Your task to perform on an android device: turn pop-ups on in chrome Image 0: 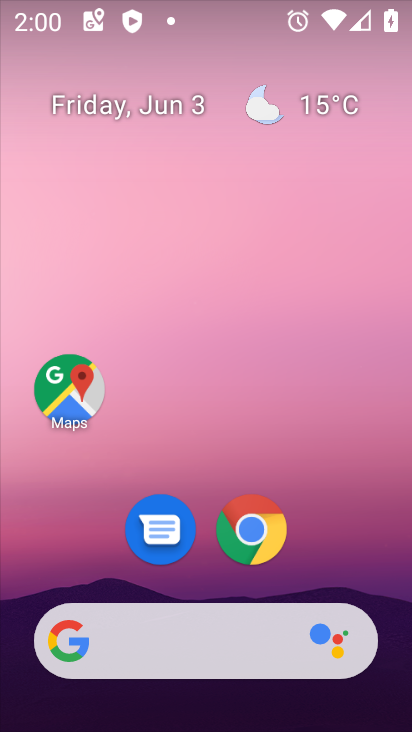
Step 0: drag from (379, 570) to (375, 242)
Your task to perform on an android device: turn pop-ups on in chrome Image 1: 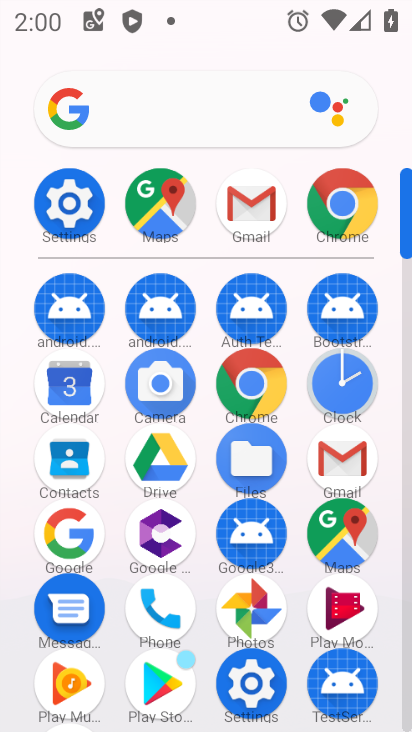
Step 1: click (264, 389)
Your task to perform on an android device: turn pop-ups on in chrome Image 2: 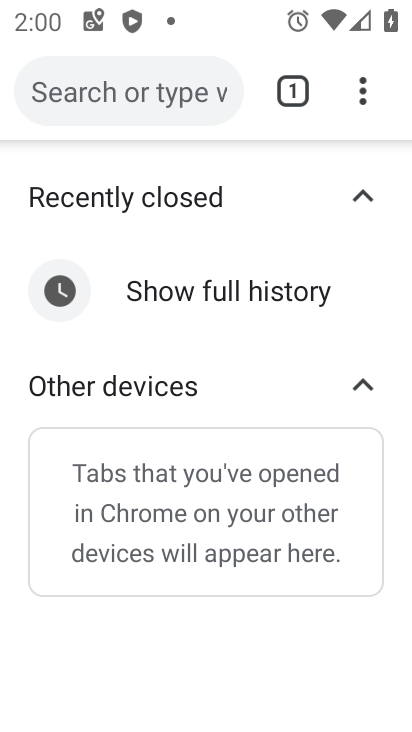
Step 2: click (361, 104)
Your task to perform on an android device: turn pop-ups on in chrome Image 3: 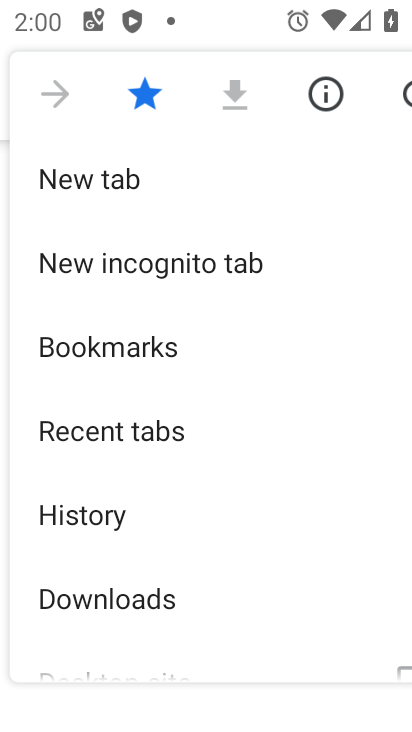
Step 3: drag from (337, 419) to (337, 335)
Your task to perform on an android device: turn pop-ups on in chrome Image 4: 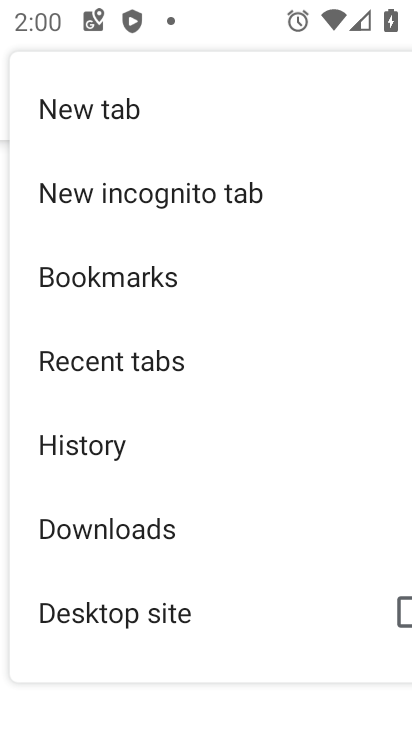
Step 4: drag from (326, 415) to (339, 334)
Your task to perform on an android device: turn pop-ups on in chrome Image 5: 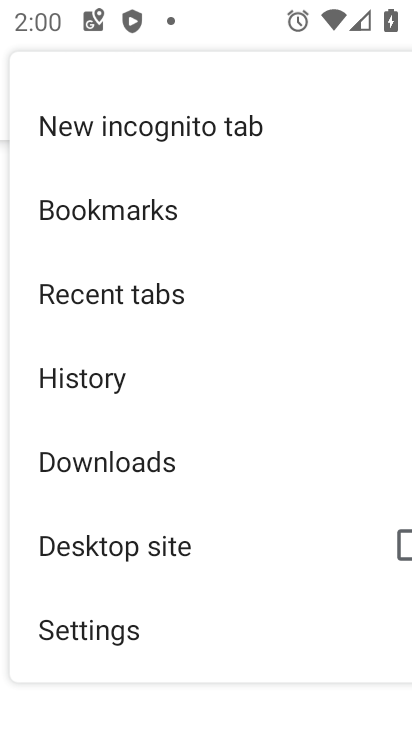
Step 5: drag from (333, 447) to (335, 356)
Your task to perform on an android device: turn pop-ups on in chrome Image 6: 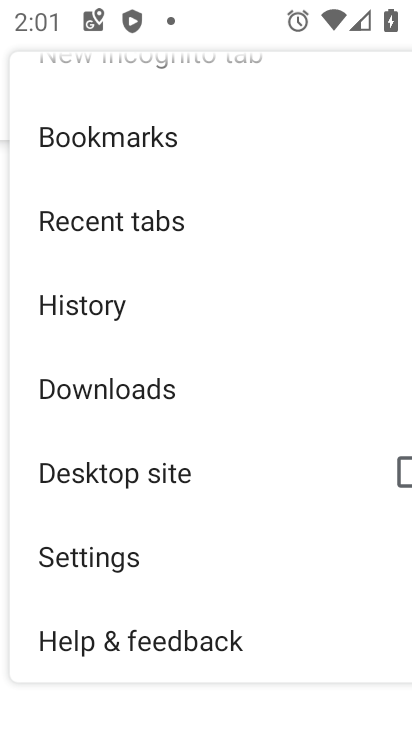
Step 6: drag from (317, 484) to (329, 357)
Your task to perform on an android device: turn pop-ups on in chrome Image 7: 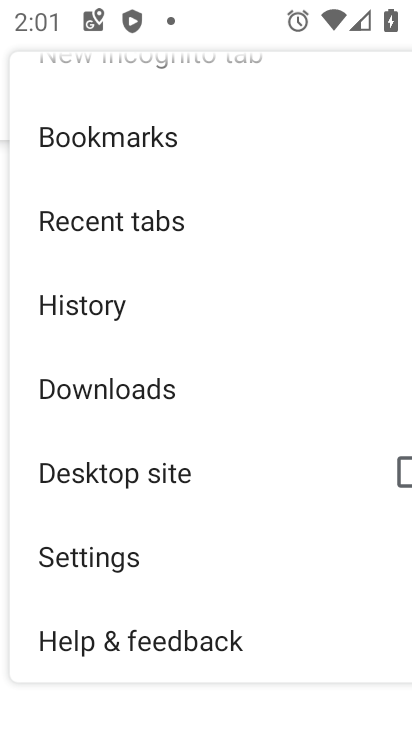
Step 7: click (169, 561)
Your task to perform on an android device: turn pop-ups on in chrome Image 8: 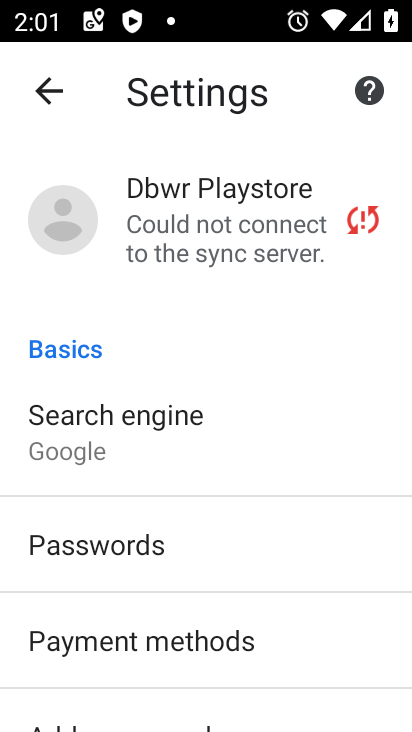
Step 8: drag from (322, 554) to (323, 484)
Your task to perform on an android device: turn pop-ups on in chrome Image 9: 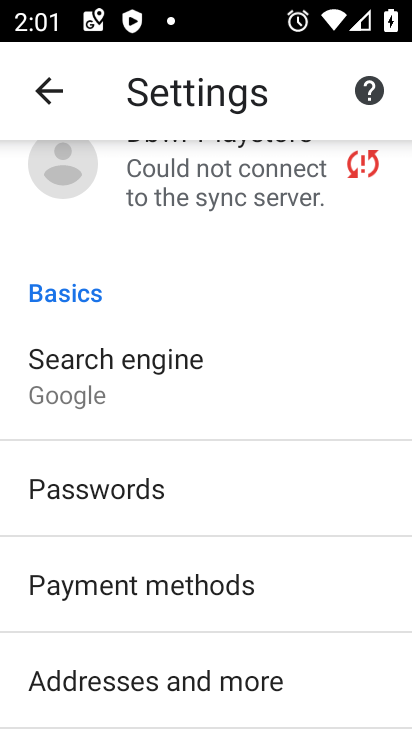
Step 9: drag from (334, 555) to (341, 465)
Your task to perform on an android device: turn pop-ups on in chrome Image 10: 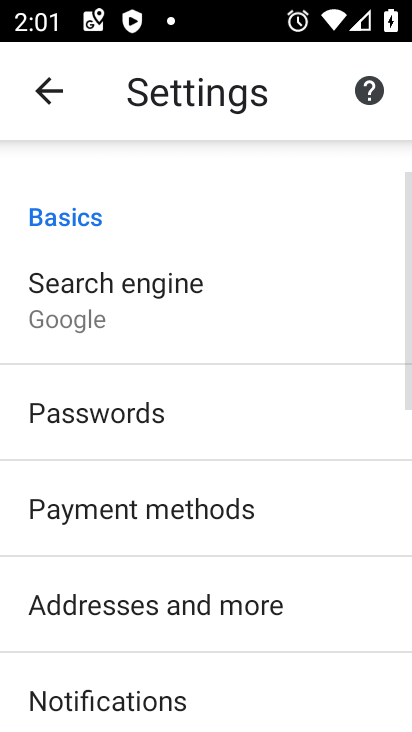
Step 10: drag from (330, 542) to (337, 461)
Your task to perform on an android device: turn pop-ups on in chrome Image 11: 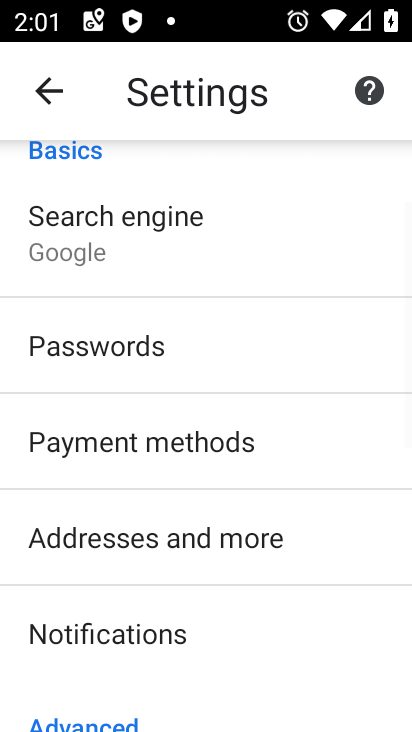
Step 11: drag from (334, 539) to (337, 465)
Your task to perform on an android device: turn pop-ups on in chrome Image 12: 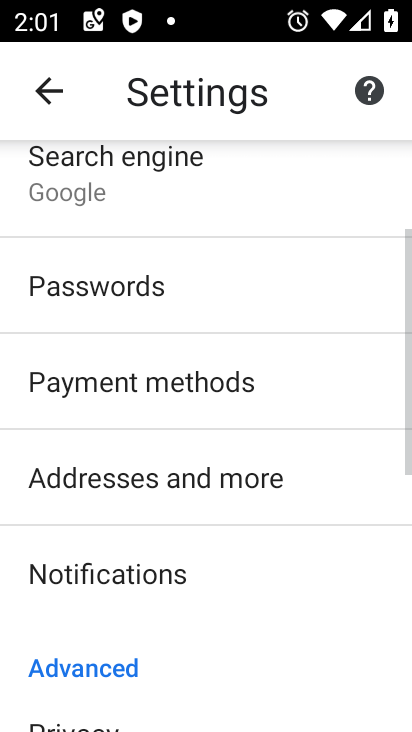
Step 12: drag from (328, 546) to (335, 464)
Your task to perform on an android device: turn pop-ups on in chrome Image 13: 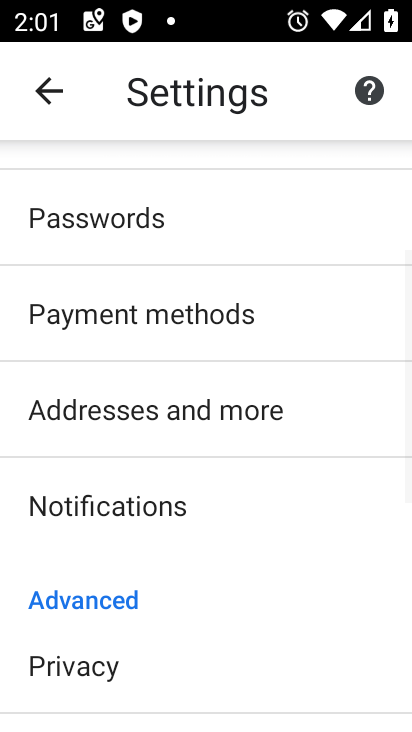
Step 13: drag from (314, 526) to (325, 435)
Your task to perform on an android device: turn pop-ups on in chrome Image 14: 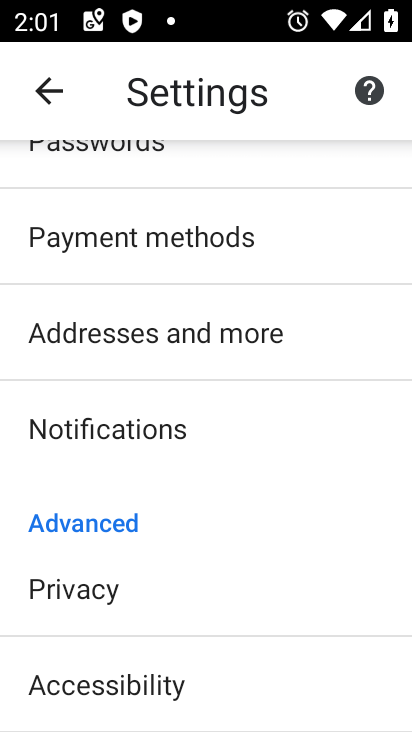
Step 14: drag from (343, 515) to (339, 449)
Your task to perform on an android device: turn pop-ups on in chrome Image 15: 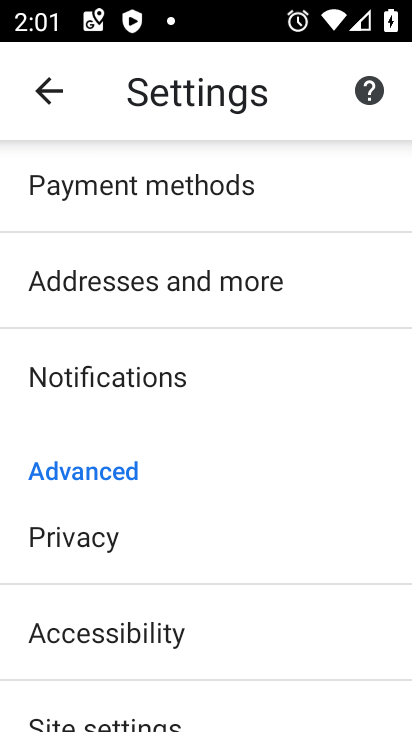
Step 15: drag from (311, 527) to (303, 401)
Your task to perform on an android device: turn pop-ups on in chrome Image 16: 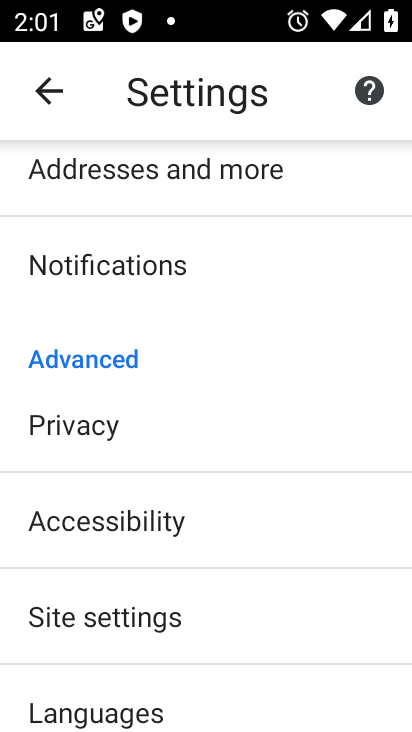
Step 16: drag from (288, 565) to (283, 427)
Your task to perform on an android device: turn pop-ups on in chrome Image 17: 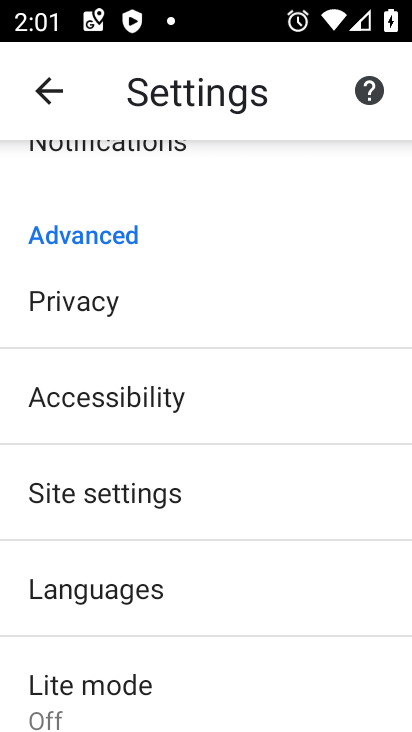
Step 17: click (261, 495)
Your task to perform on an android device: turn pop-ups on in chrome Image 18: 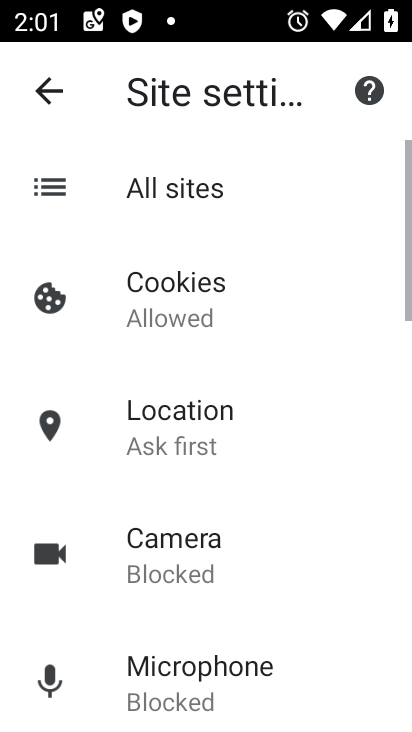
Step 18: drag from (264, 537) to (270, 428)
Your task to perform on an android device: turn pop-ups on in chrome Image 19: 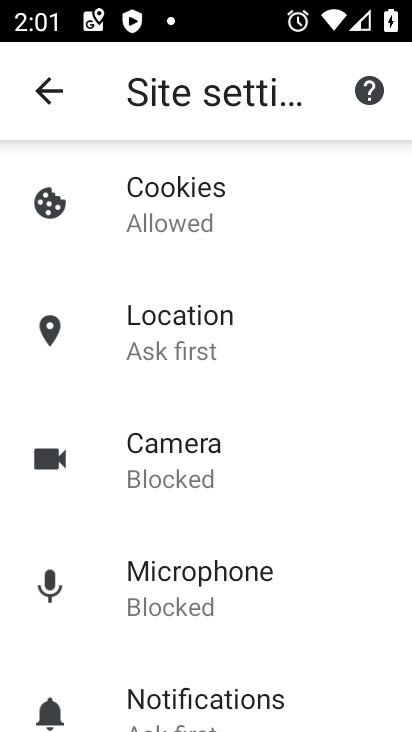
Step 19: drag from (316, 583) to (316, 469)
Your task to perform on an android device: turn pop-ups on in chrome Image 20: 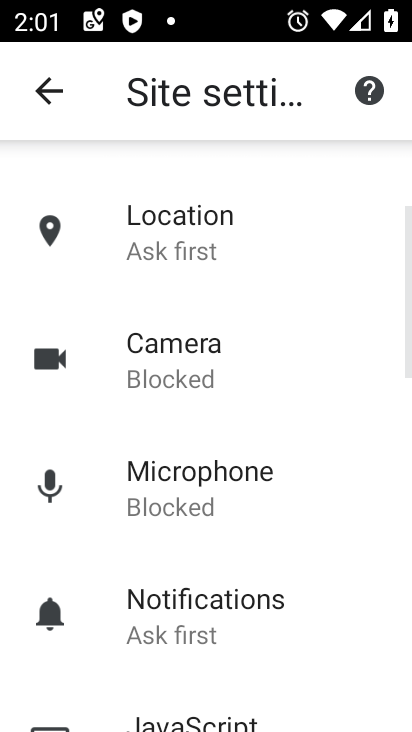
Step 20: drag from (326, 573) to (333, 462)
Your task to perform on an android device: turn pop-ups on in chrome Image 21: 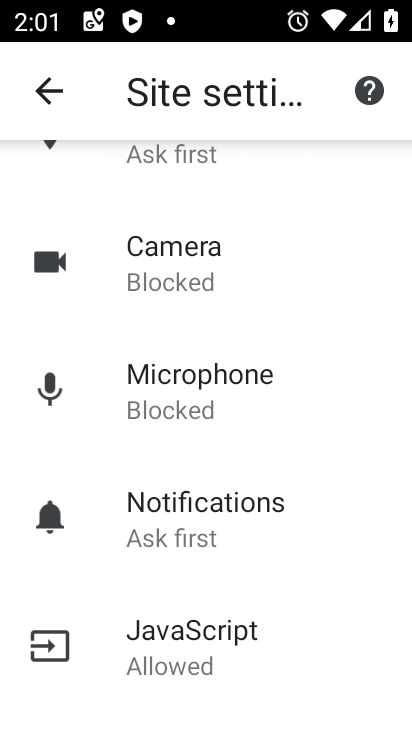
Step 21: drag from (340, 572) to (338, 482)
Your task to perform on an android device: turn pop-ups on in chrome Image 22: 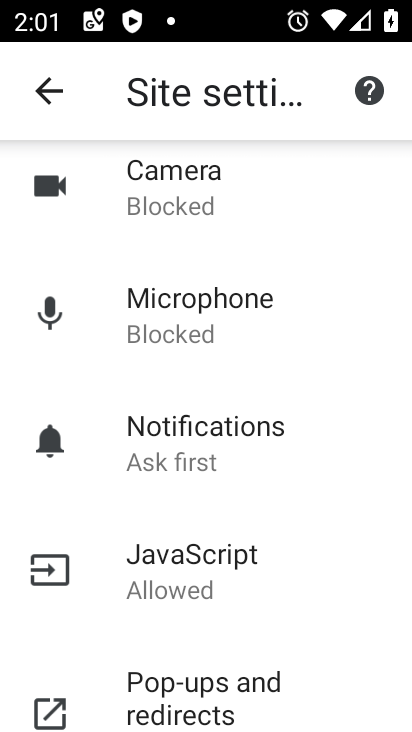
Step 22: drag from (332, 582) to (333, 477)
Your task to perform on an android device: turn pop-ups on in chrome Image 23: 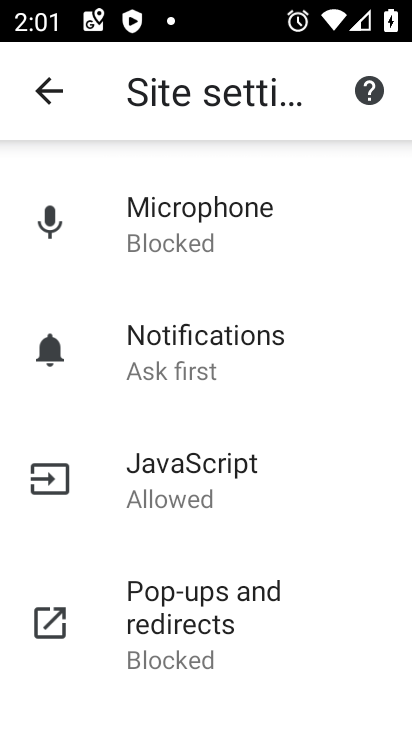
Step 23: drag from (353, 584) to (363, 458)
Your task to perform on an android device: turn pop-ups on in chrome Image 24: 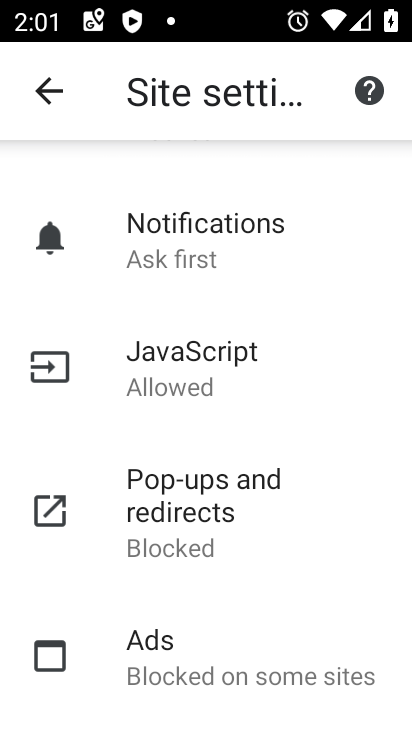
Step 24: drag from (333, 569) to (333, 483)
Your task to perform on an android device: turn pop-ups on in chrome Image 25: 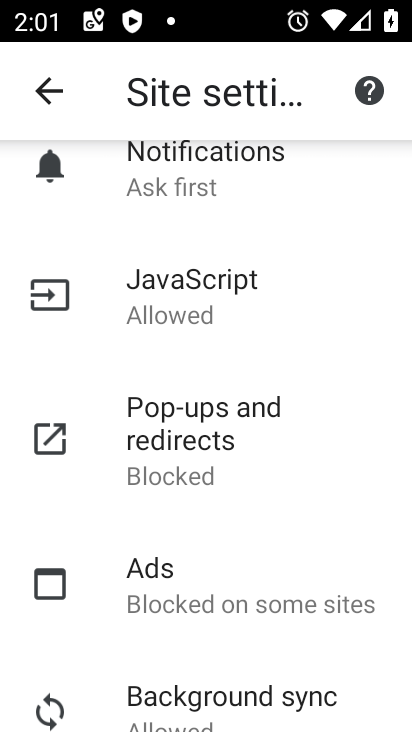
Step 25: click (267, 460)
Your task to perform on an android device: turn pop-ups on in chrome Image 26: 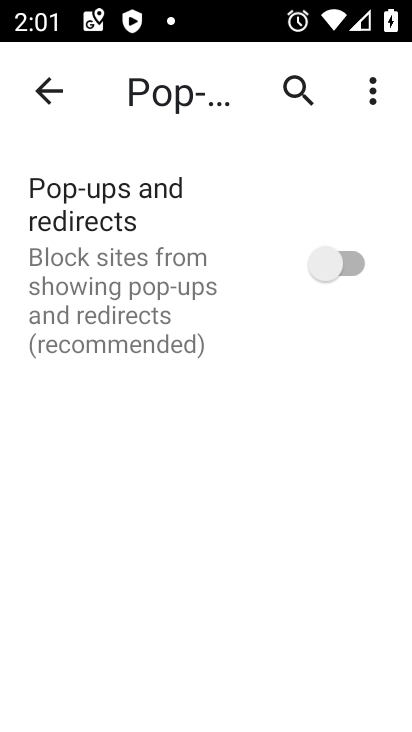
Step 26: click (350, 264)
Your task to perform on an android device: turn pop-ups on in chrome Image 27: 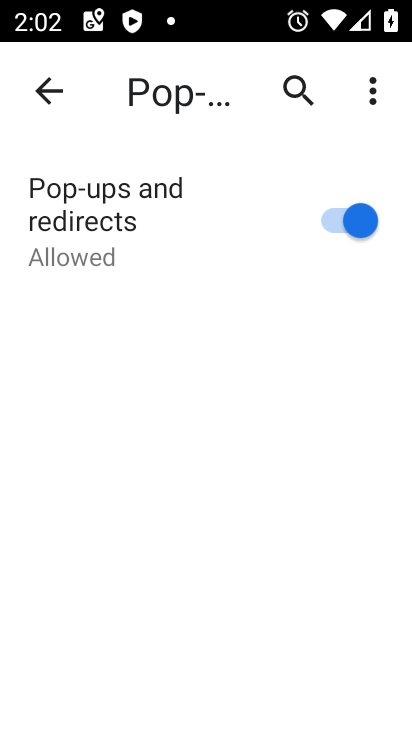
Step 27: task complete